Your task to perform on an android device: Go to Google Image 0: 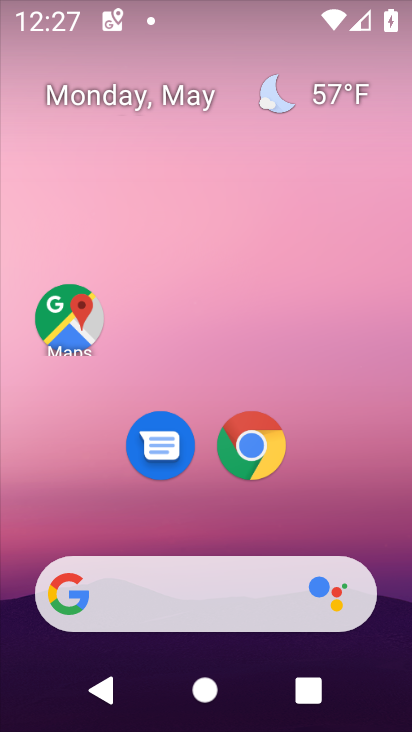
Step 0: drag from (351, 514) to (316, 230)
Your task to perform on an android device: Go to Google Image 1: 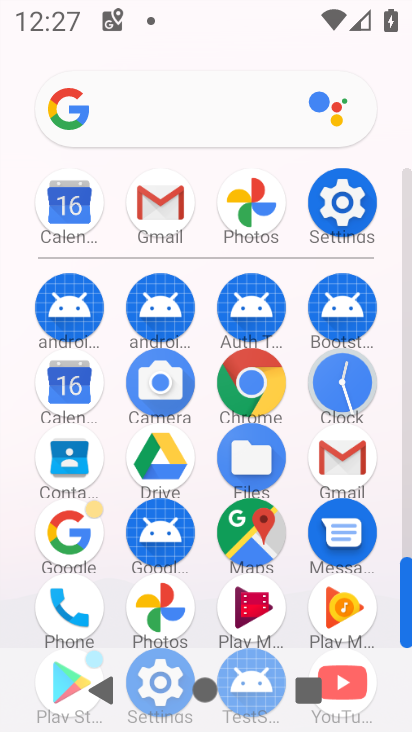
Step 1: click (62, 518)
Your task to perform on an android device: Go to Google Image 2: 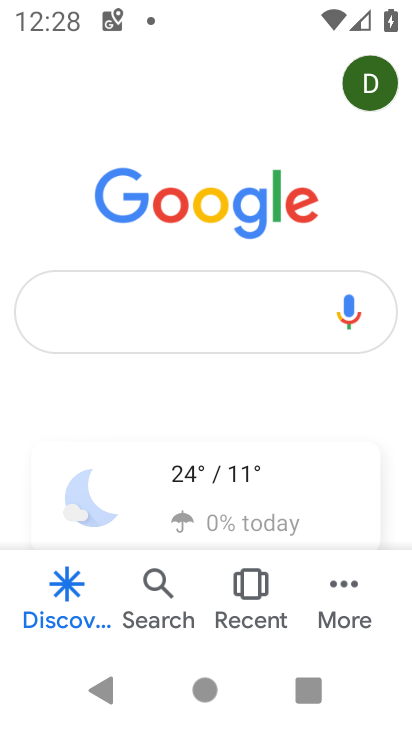
Step 2: task complete